Your task to perform on an android device: show emergency info Image 0: 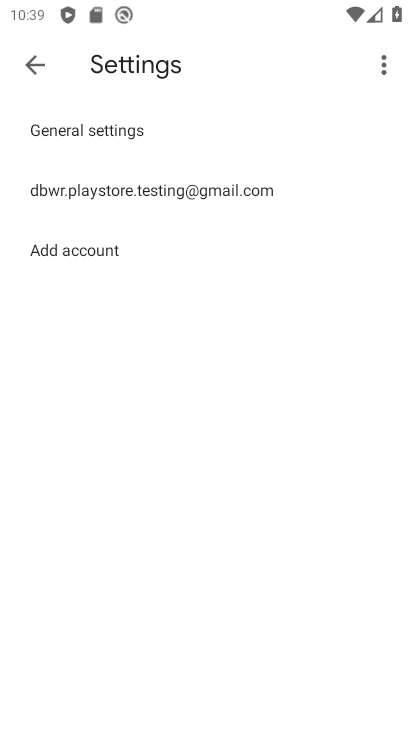
Step 0: press home button
Your task to perform on an android device: show emergency info Image 1: 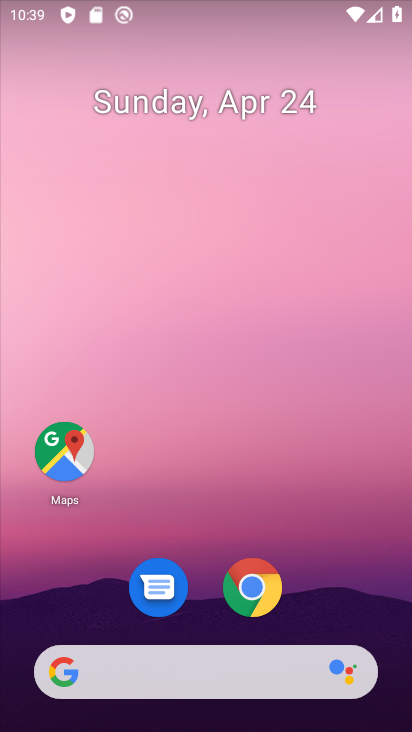
Step 1: drag from (365, 578) to (333, 113)
Your task to perform on an android device: show emergency info Image 2: 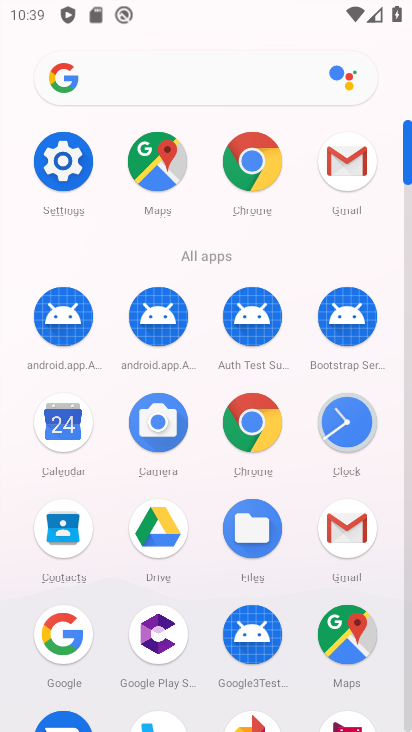
Step 2: click (78, 147)
Your task to perform on an android device: show emergency info Image 3: 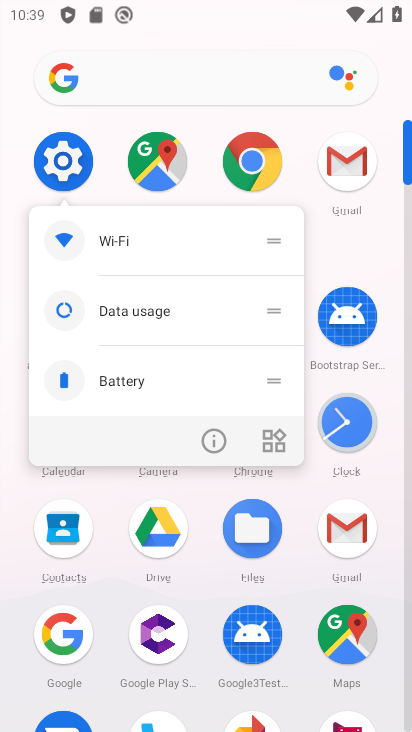
Step 3: click (47, 174)
Your task to perform on an android device: show emergency info Image 4: 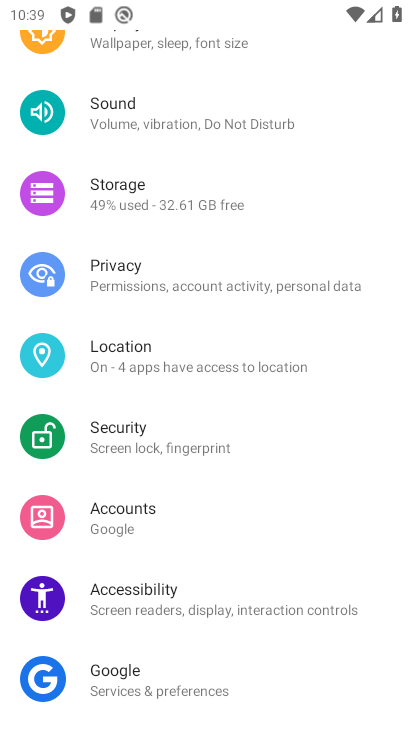
Step 4: drag from (216, 628) to (325, 189)
Your task to perform on an android device: show emergency info Image 5: 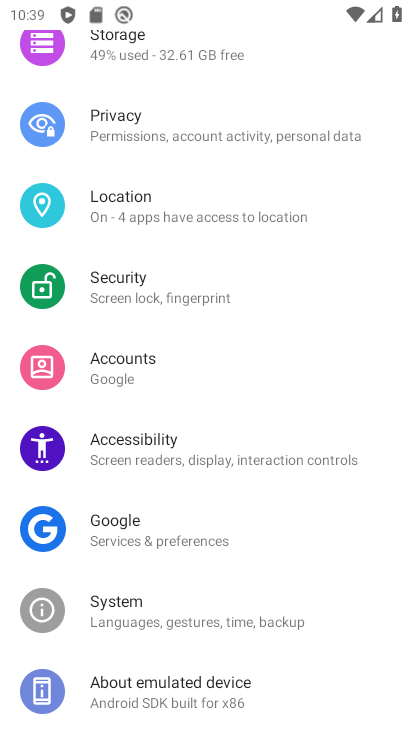
Step 5: drag from (336, 580) to (322, 269)
Your task to perform on an android device: show emergency info Image 6: 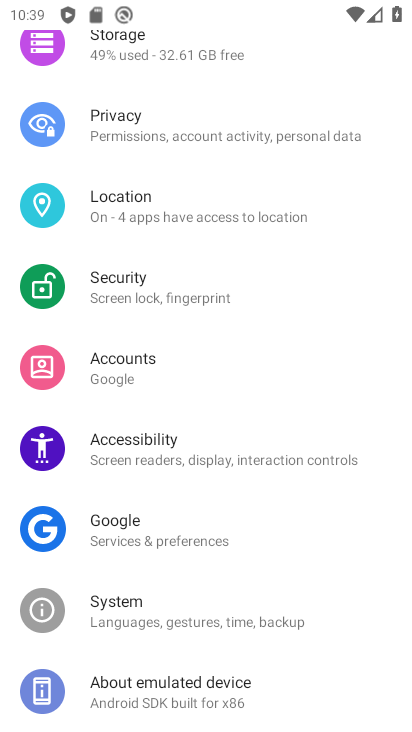
Step 6: click (190, 697)
Your task to perform on an android device: show emergency info Image 7: 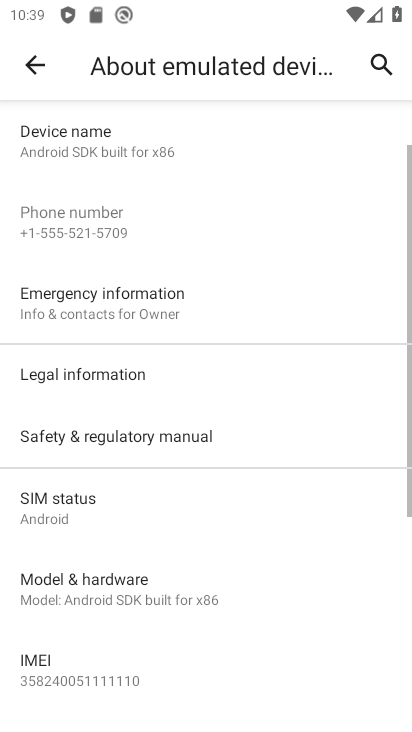
Step 7: click (102, 293)
Your task to perform on an android device: show emergency info Image 8: 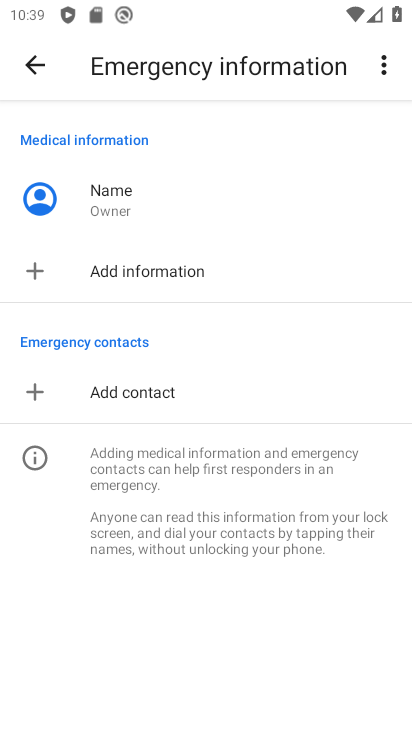
Step 8: task complete